Your task to perform on an android device: set default search engine in the chrome app Image 0: 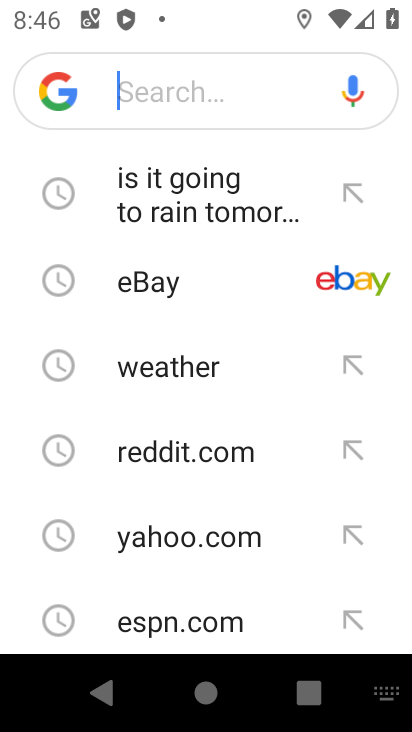
Step 0: press home button
Your task to perform on an android device: set default search engine in the chrome app Image 1: 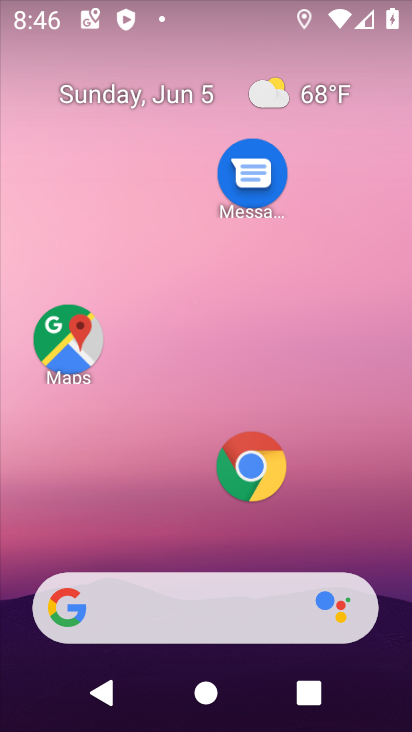
Step 1: drag from (170, 487) to (227, 108)
Your task to perform on an android device: set default search engine in the chrome app Image 2: 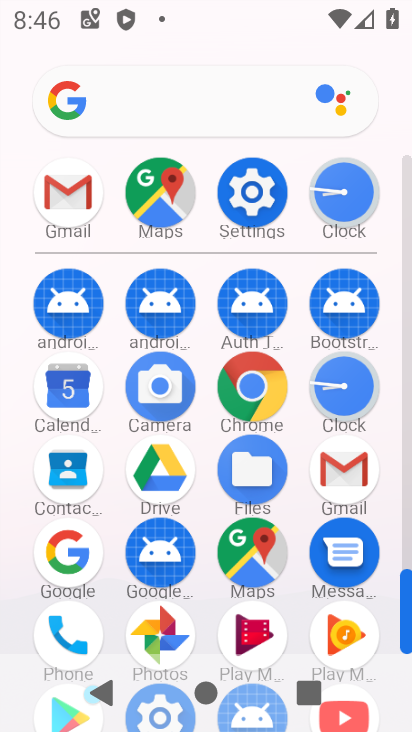
Step 2: click (249, 387)
Your task to perform on an android device: set default search engine in the chrome app Image 3: 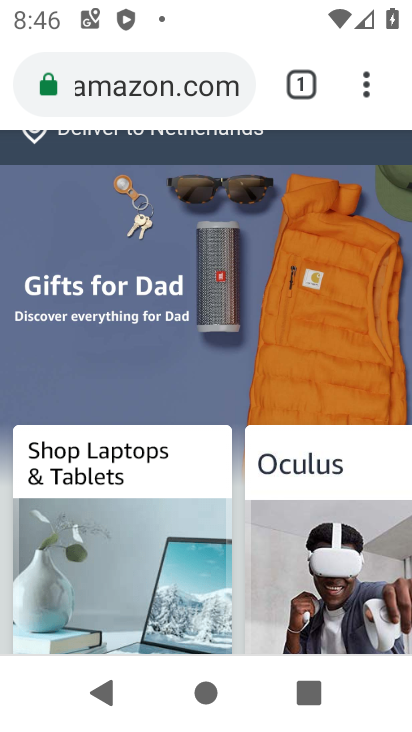
Step 3: drag from (197, 607) to (213, 273)
Your task to perform on an android device: set default search engine in the chrome app Image 4: 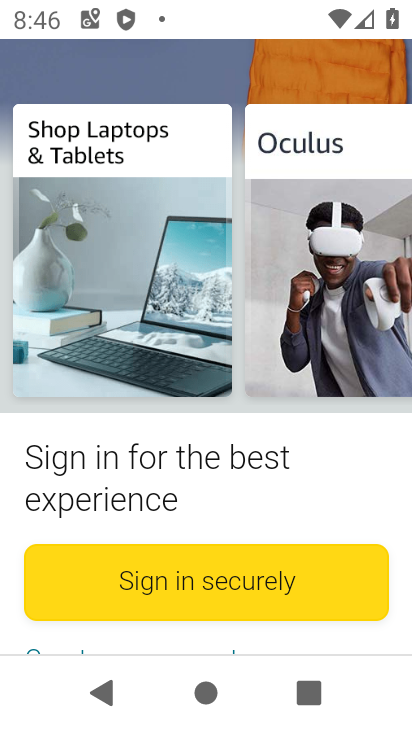
Step 4: drag from (238, 188) to (309, 706)
Your task to perform on an android device: set default search engine in the chrome app Image 5: 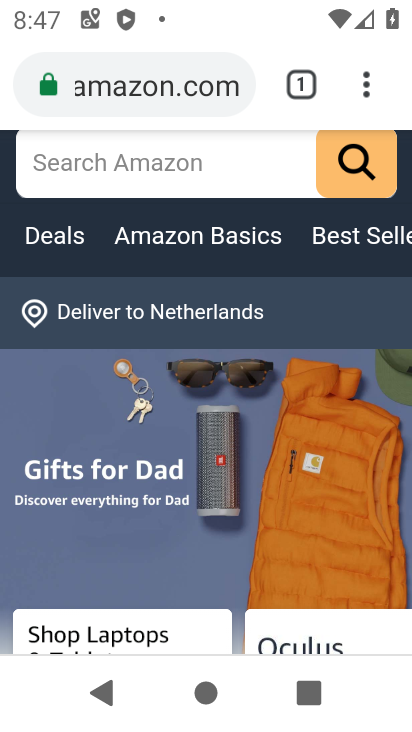
Step 5: click (362, 76)
Your task to perform on an android device: set default search engine in the chrome app Image 6: 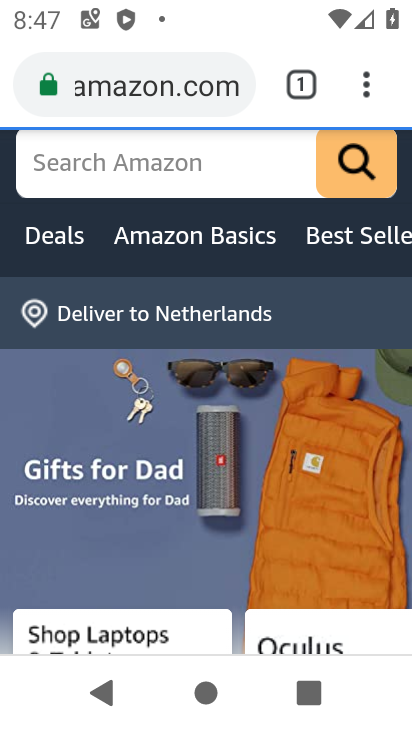
Step 6: drag from (362, 78) to (138, 512)
Your task to perform on an android device: set default search engine in the chrome app Image 7: 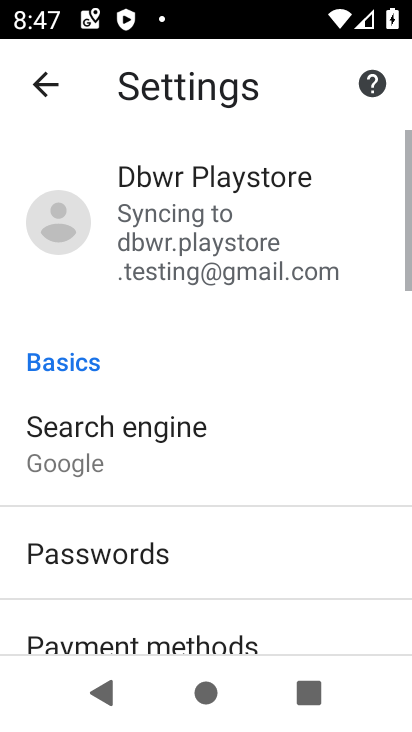
Step 7: drag from (183, 512) to (316, 83)
Your task to perform on an android device: set default search engine in the chrome app Image 8: 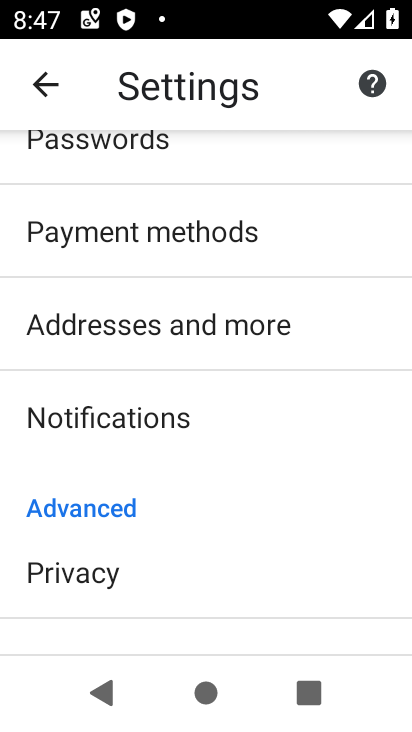
Step 8: drag from (204, 523) to (290, 186)
Your task to perform on an android device: set default search engine in the chrome app Image 9: 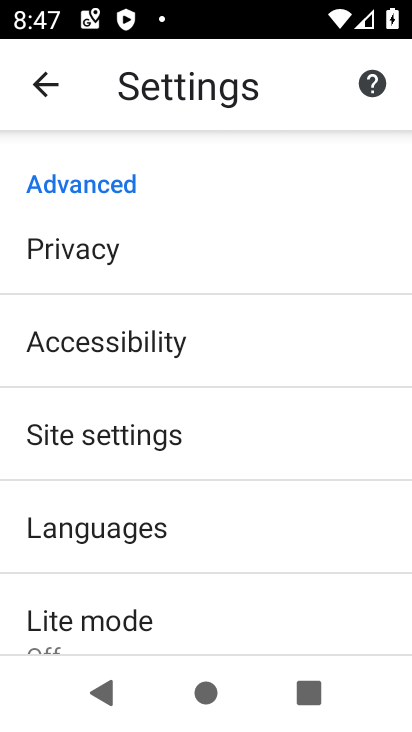
Step 9: drag from (241, 538) to (320, 728)
Your task to perform on an android device: set default search engine in the chrome app Image 10: 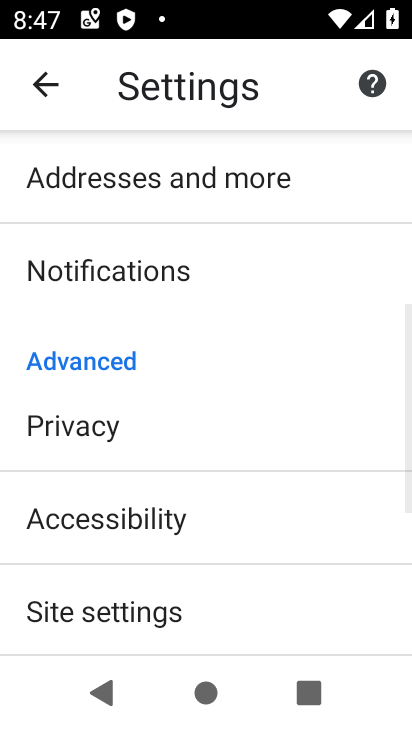
Step 10: drag from (234, 240) to (234, 729)
Your task to perform on an android device: set default search engine in the chrome app Image 11: 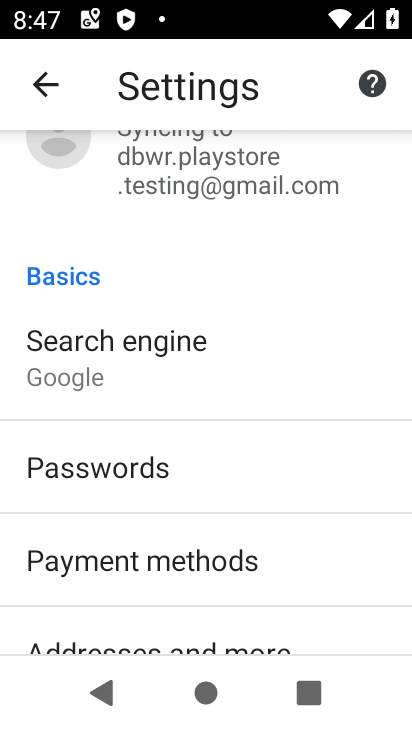
Step 11: click (145, 375)
Your task to perform on an android device: set default search engine in the chrome app Image 12: 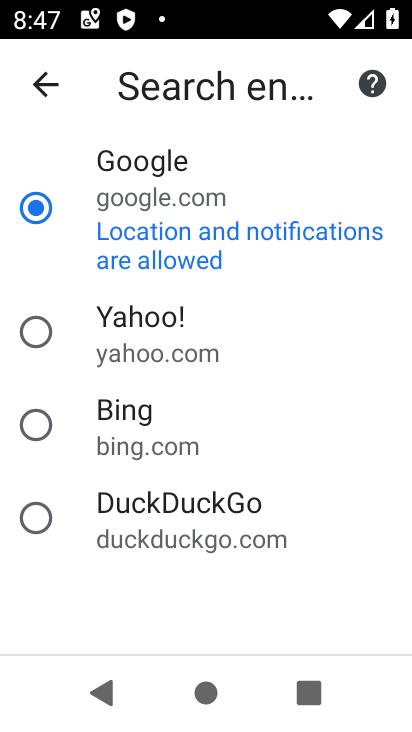
Step 12: task complete